Your task to perform on an android device: Go to Wikipedia Image 0: 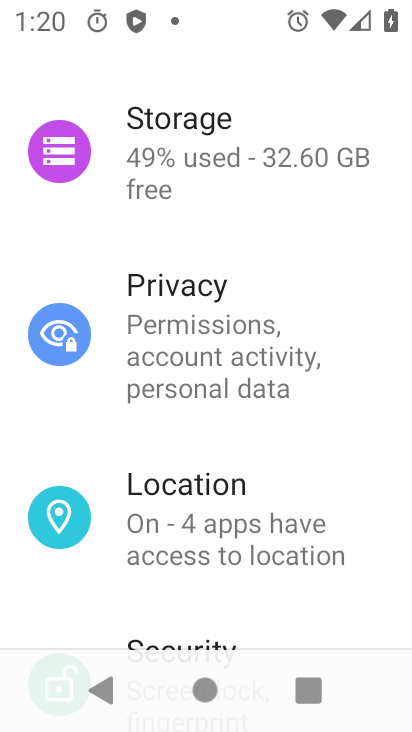
Step 0: press home button
Your task to perform on an android device: Go to Wikipedia Image 1: 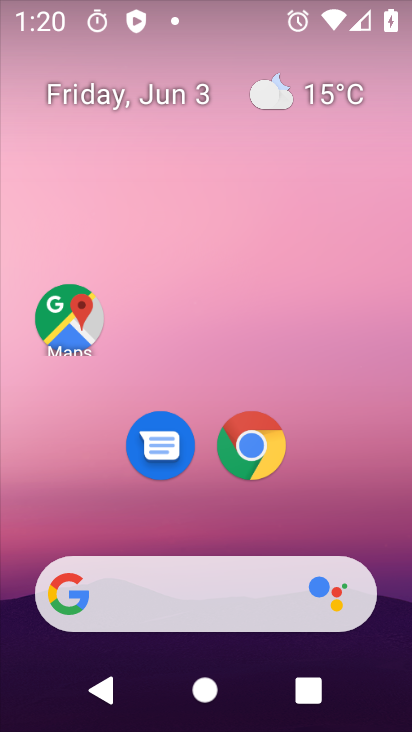
Step 1: click (228, 453)
Your task to perform on an android device: Go to Wikipedia Image 2: 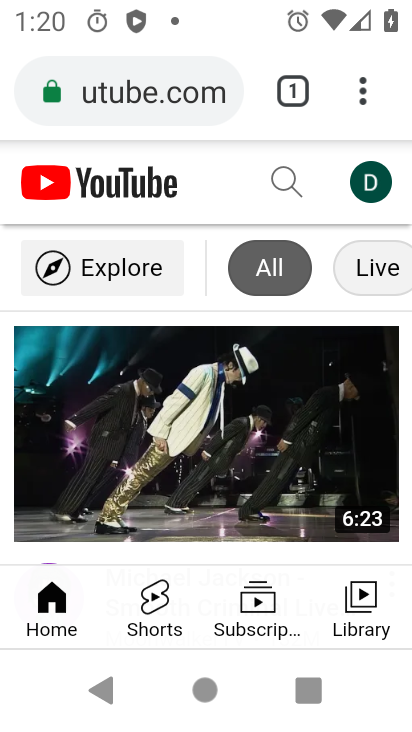
Step 2: press home button
Your task to perform on an android device: Go to Wikipedia Image 3: 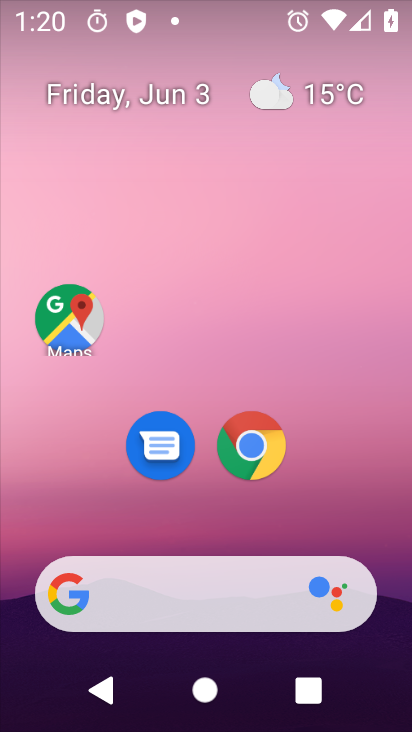
Step 3: click (255, 453)
Your task to perform on an android device: Go to Wikipedia Image 4: 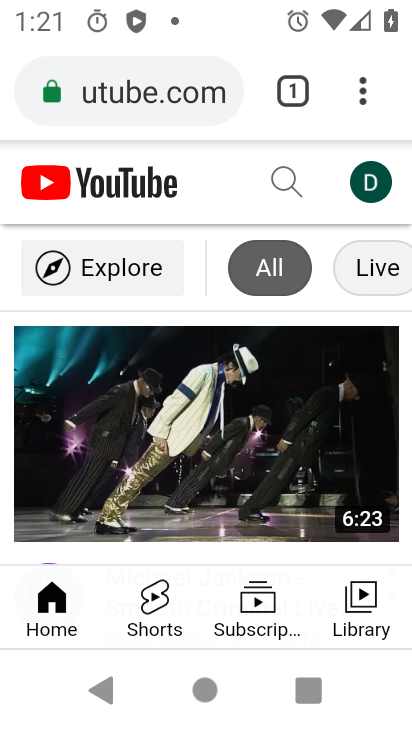
Step 4: press home button
Your task to perform on an android device: Go to Wikipedia Image 5: 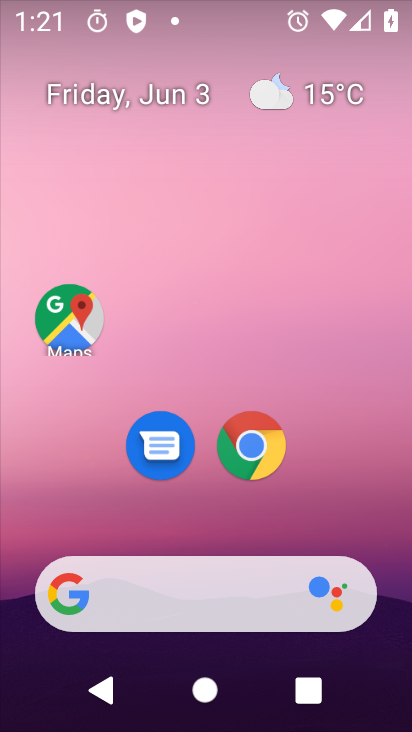
Step 5: click (259, 439)
Your task to perform on an android device: Go to Wikipedia Image 6: 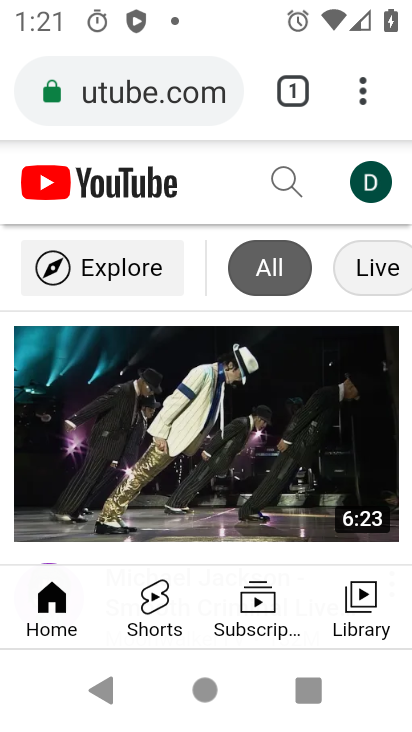
Step 6: press home button
Your task to perform on an android device: Go to Wikipedia Image 7: 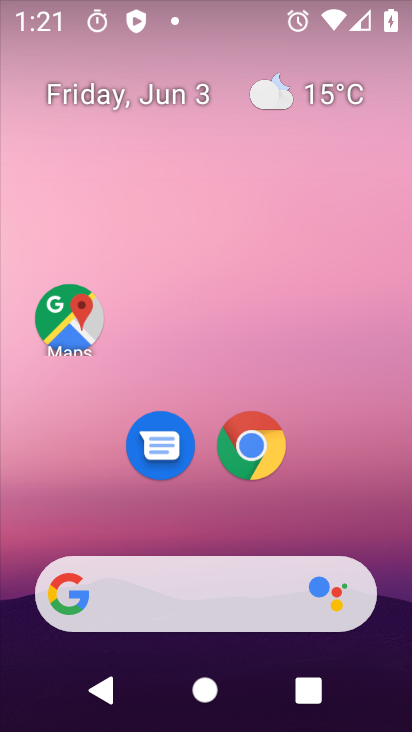
Step 7: click (254, 454)
Your task to perform on an android device: Go to Wikipedia Image 8: 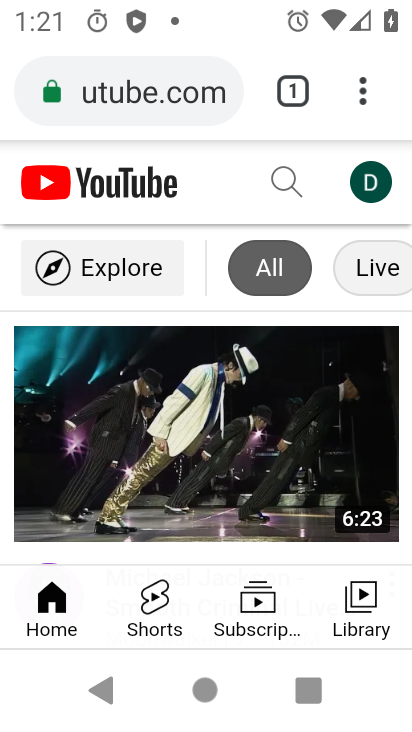
Step 8: click (299, 80)
Your task to perform on an android device: Go to Wikipedia Image 9: 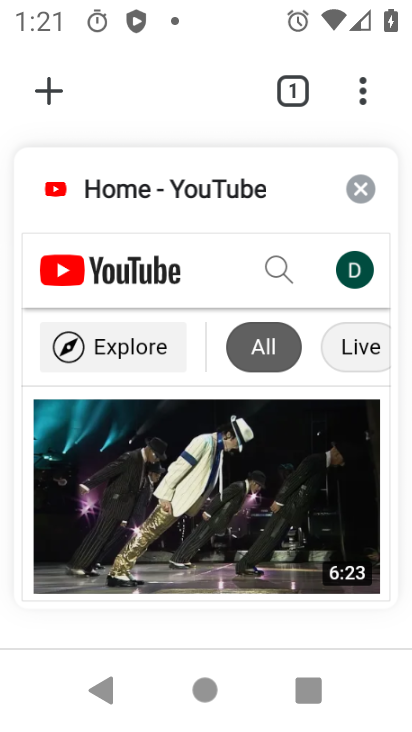
Step 9: click (46, 81)
Your task to perform on an android device: Go to Wikipedia Image 10: 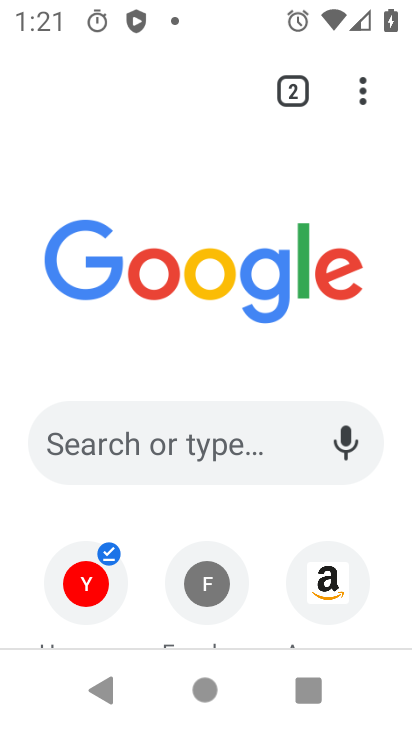
Step 10: drag from (236, 628) to (326, 42)
Your task to perform on an android device: Go to Wikipedia Image 11: 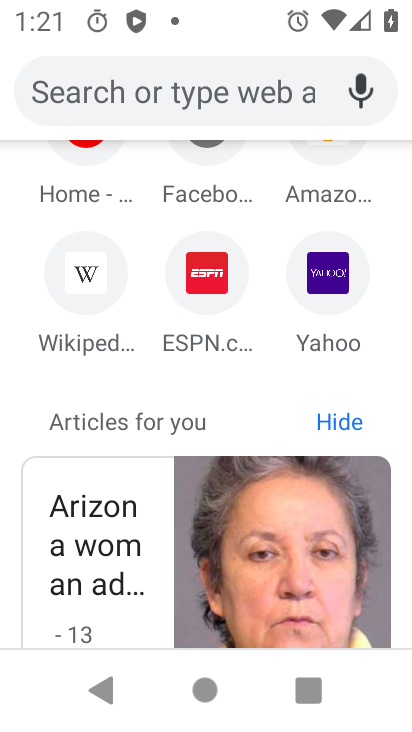
Step 11: click (70, 263)
Your task to perform on an android device: Go to Wikipedia Image 12: 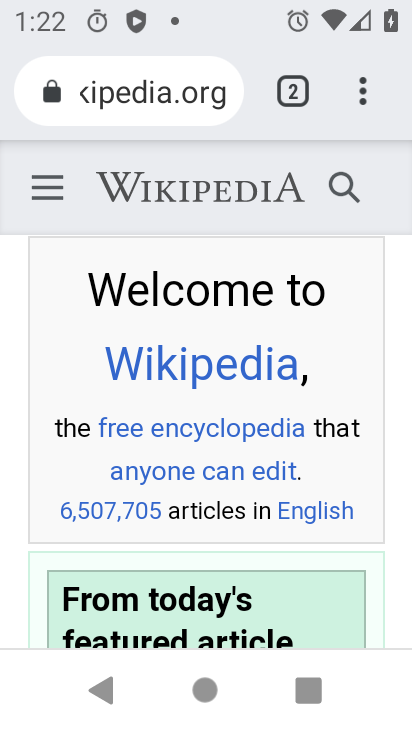
Step 12: task complete